Your task to perform on an android device: What is the recent news? Image 0: 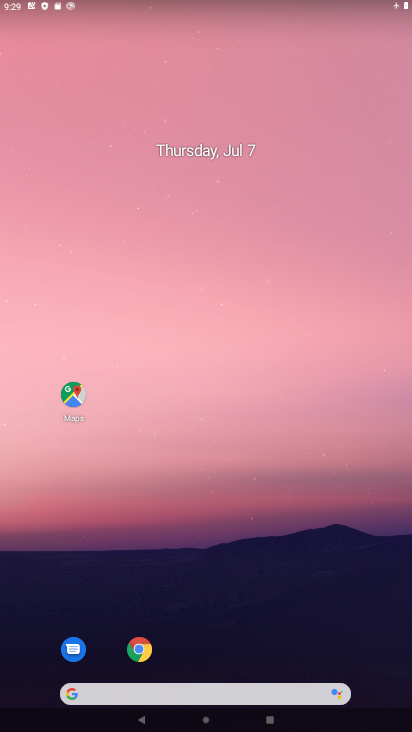
Step 0: drag from (236, 723) to (236, 666)
Your task to perform on an android device: What is the recent news? Image 1: 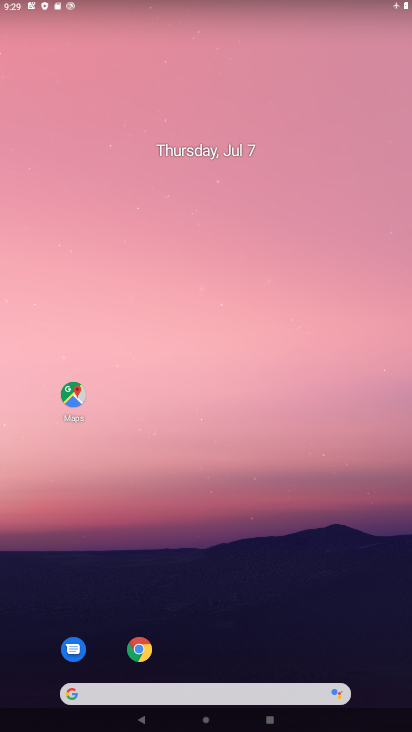
Step 1: task complete